Your task to perform on an android device: Open the Play Movies app and select the watchlist tab. Image 0: 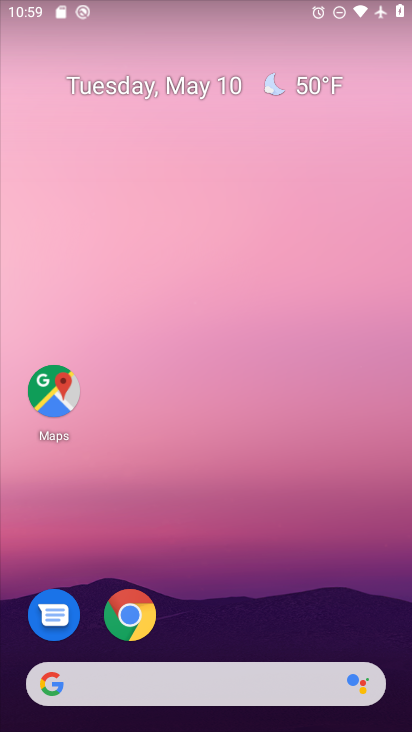
Step 0: drag from (381, 618) to (279, 212)
Your task to perform on an android device: Open the Play Movies app and select the watchlist tab. Image 1: 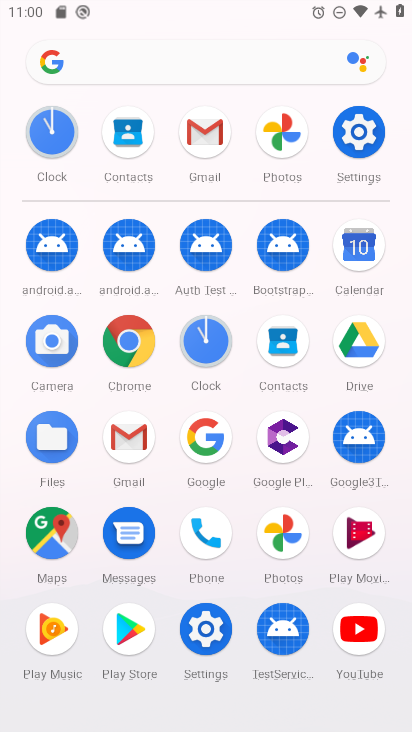
Step 1: click (356, 527)
Your task to perform on an android device: Open the Play Movies app and select the watchlist tab. Image 2: 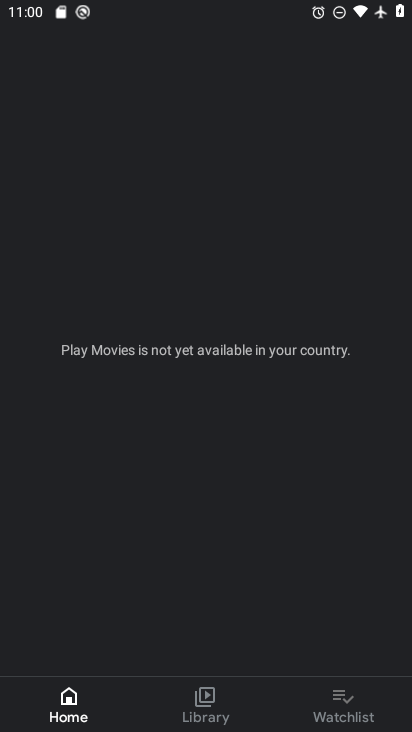
Step 2: click (345, 705)
Your task to perform on an android device: Open the Play Movies app and select the watchlist tab. Image 3: 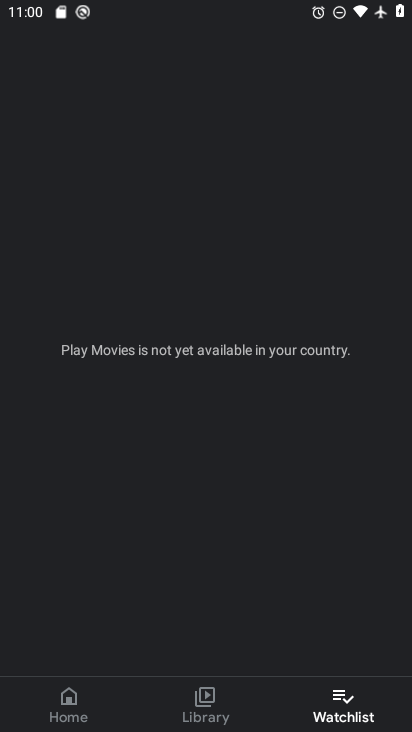
Step 3: task complete